Your task to perform on an android device: Go to location settings Image 0: 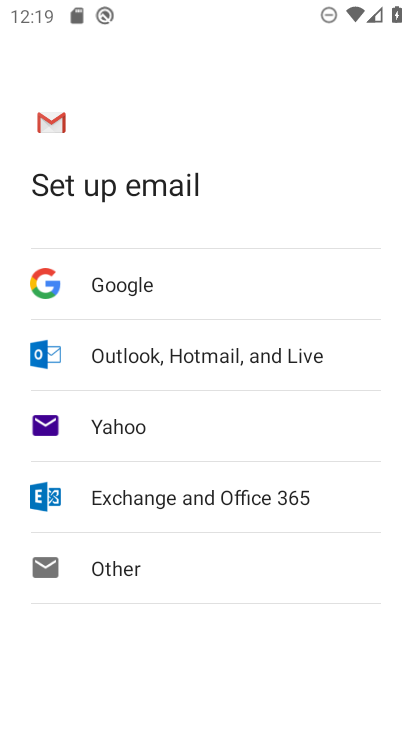
Step 0: press home button
Your task to perform on an android device: Go to location settings Image 1: 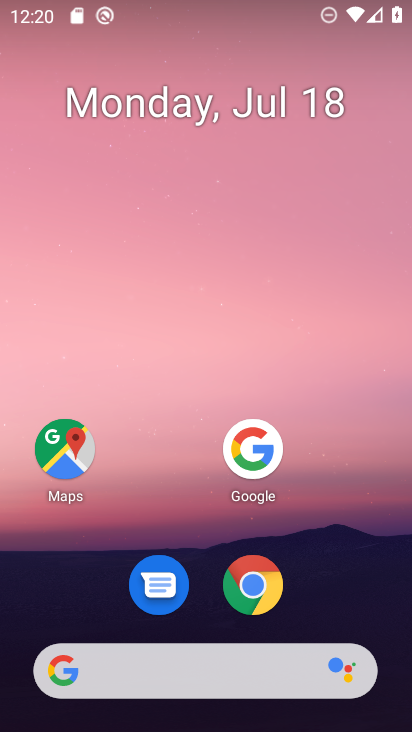
Step 1: drag from (238, 675) to (383, 190)
Your task to perform on an android device: Go to location settings Image 2: 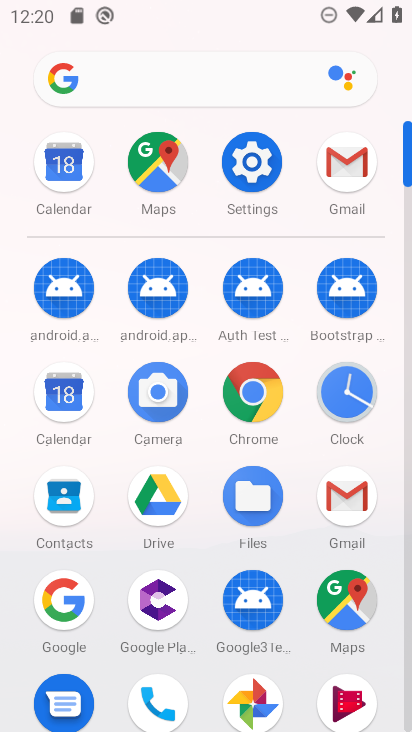
Step 2: click (259, 165)
Your task to perform on an android device: Go to location settings Image 3: 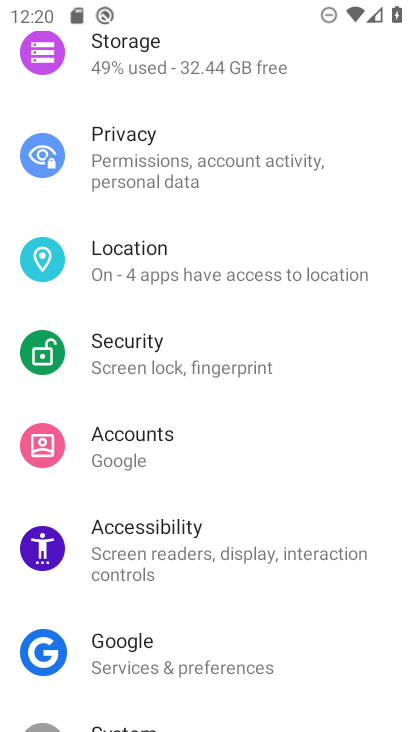
Step 3: click (174, 260)
Your task to perform on an android device: Go to location settings Image 4: 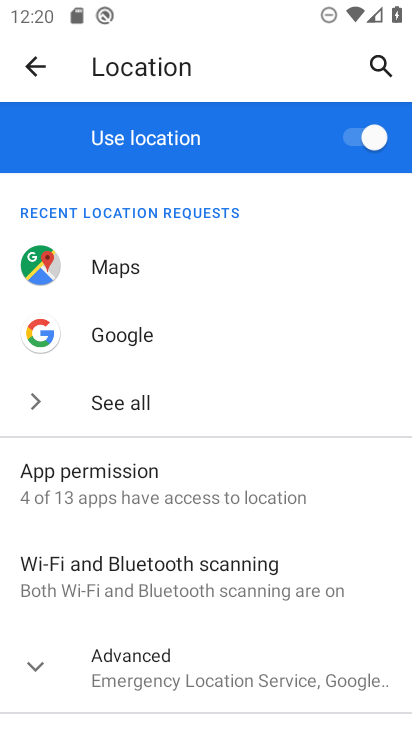
Step 4: task complete